Your task to perform on an android device: Search for hotels in Sydney Image 0: 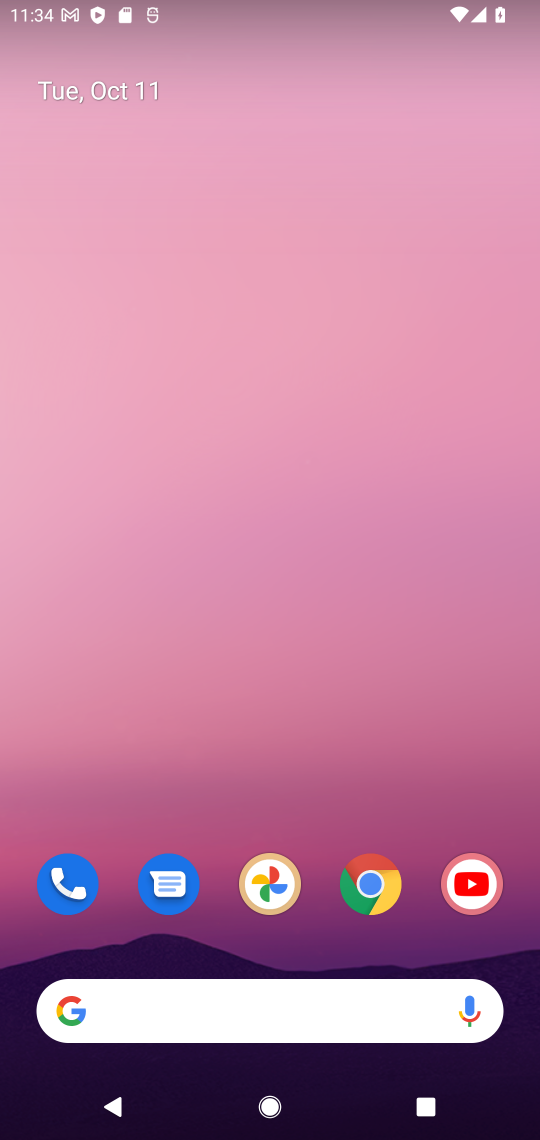
Step 0: drag from (206, 743) to (198, 354)
Your task to perform on an android device: Search for hotels in Sydney Image 1: 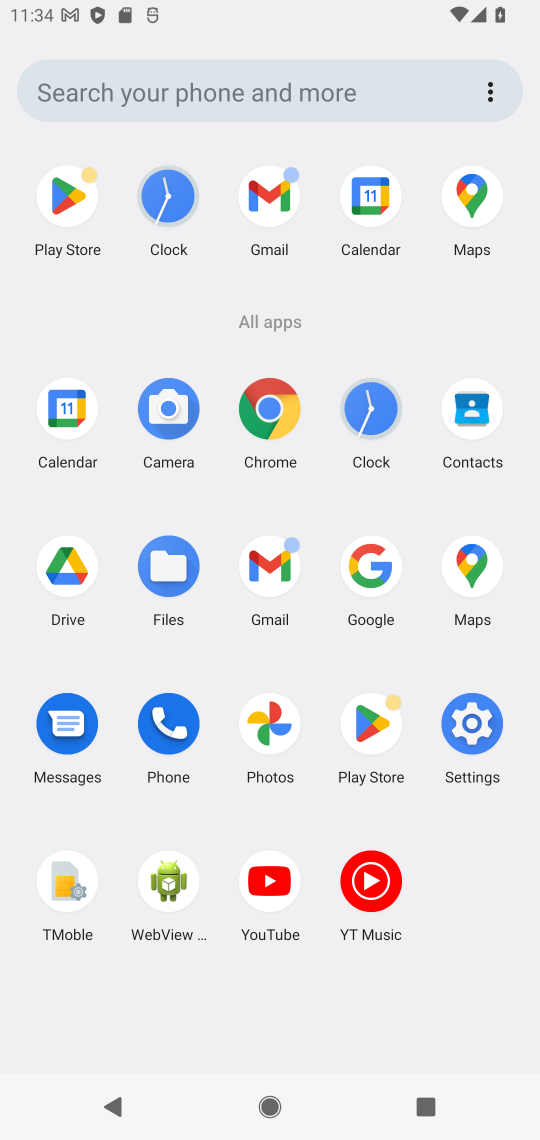
Step 1: click (386, 566)
Your task to perform on an android device: Search for hotels in Sydney Image 2: 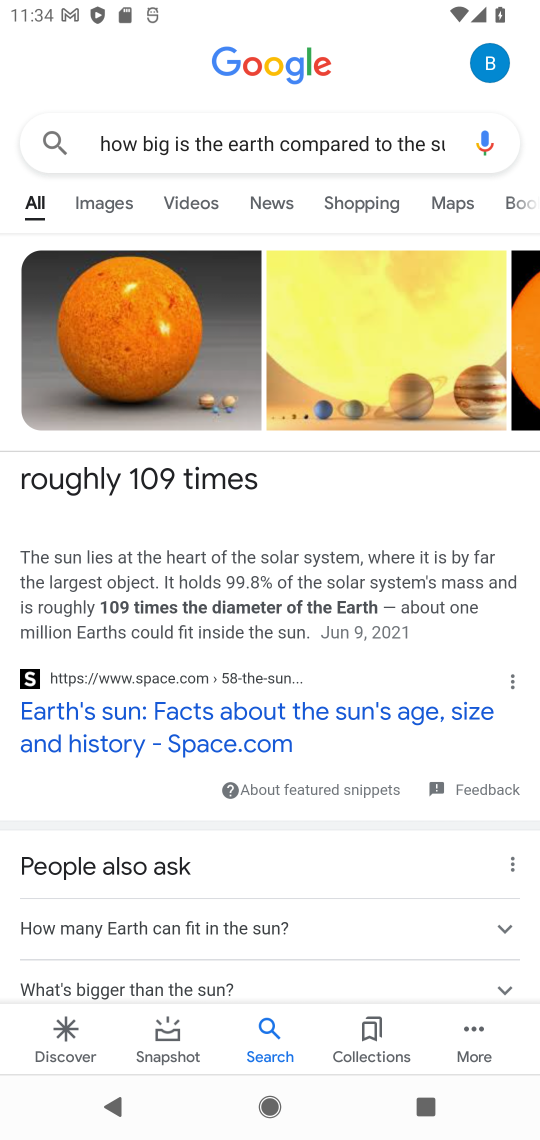
Step 2: click (304, 135)
Your task to perform on an android device: Search for hotels in Sydney Image 3: 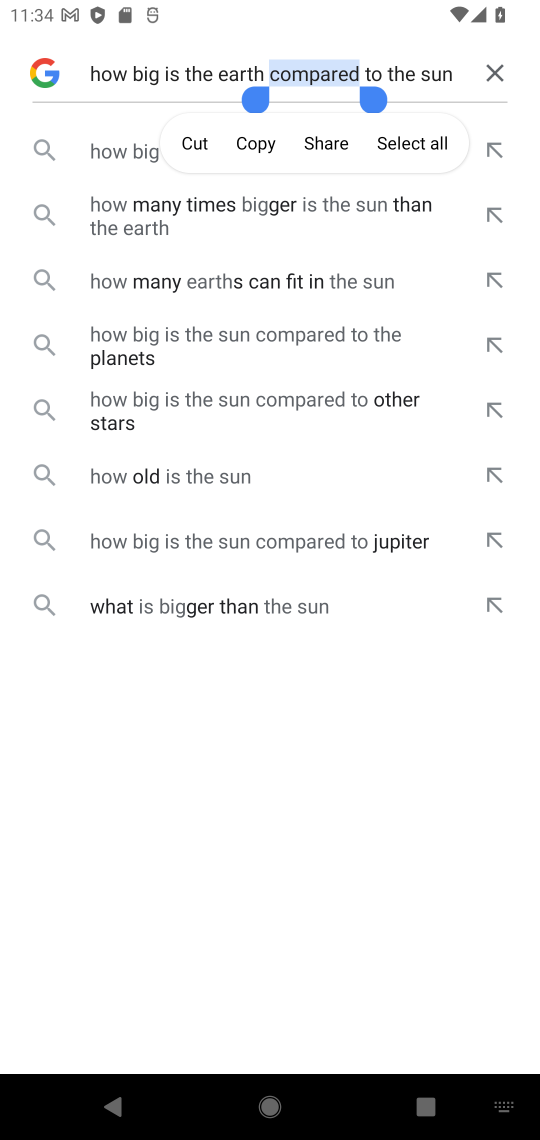
Step 3: click (496, 78)
Your task to perform on an android device: Search for hotels in Sydney Image 4: 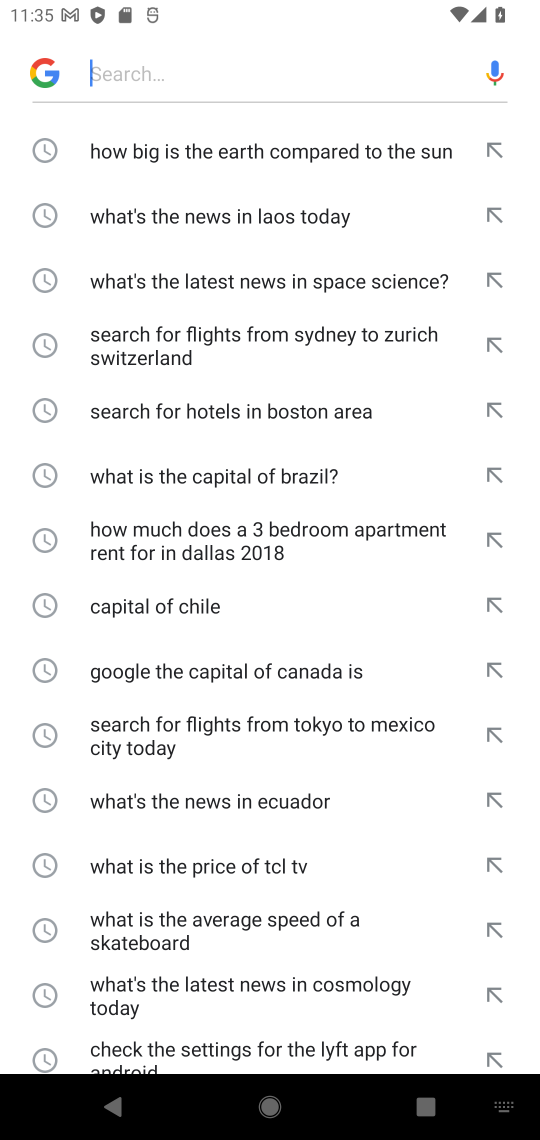
Step 4: type "Search for hotels in Sydney"
Your task to perform on an android device: Search for hotels in Sydney Image 5: 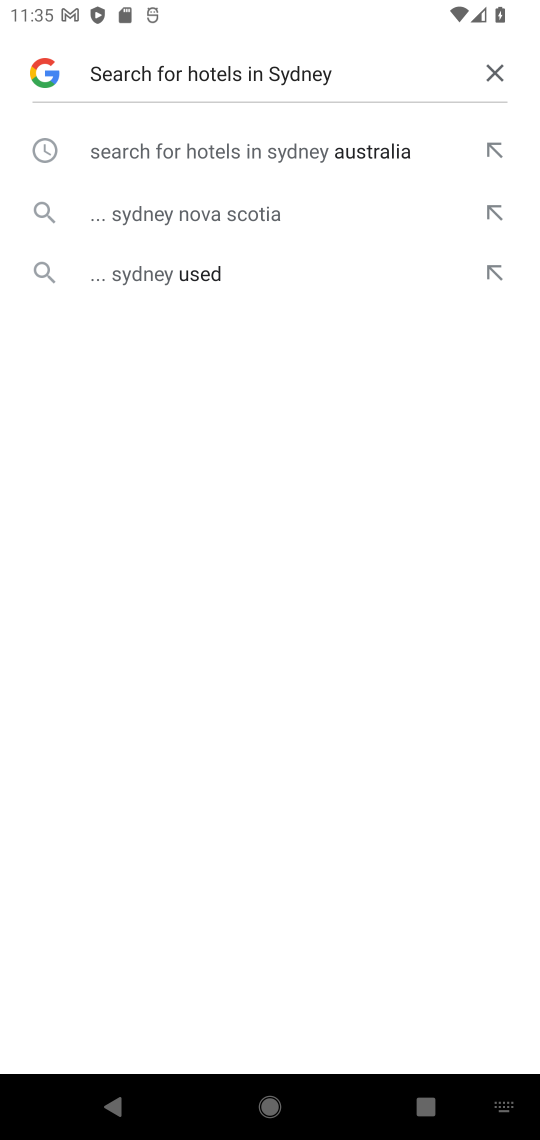
Step 5: click (227, 163)
Your task to perform on an android device: Search for hotels in Sydney Image 6: 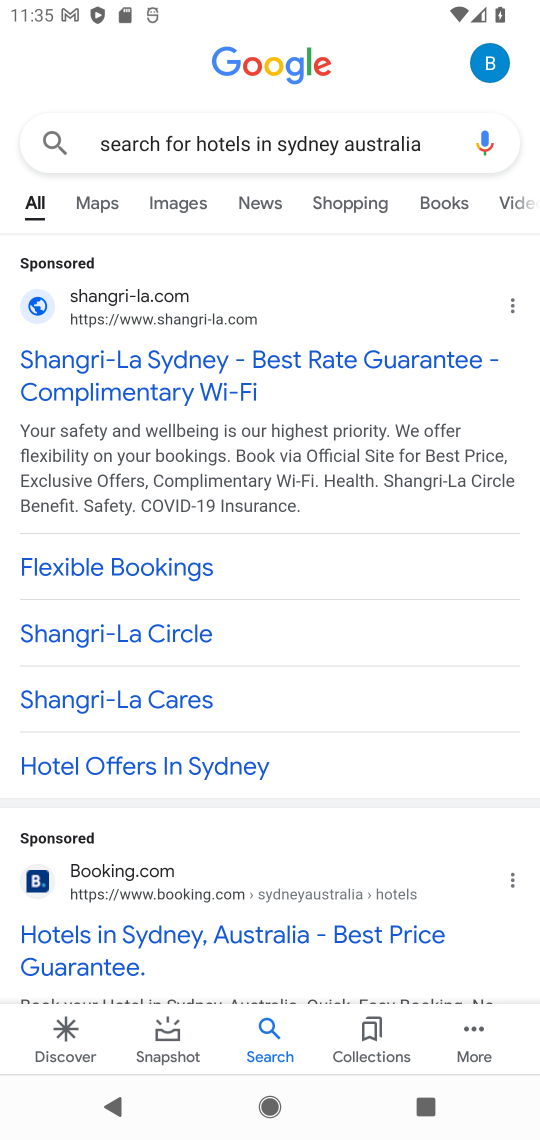
Step 6: click (193, 380)
Your task to perform on an android device: Search for hotels in Sydney Image 7: 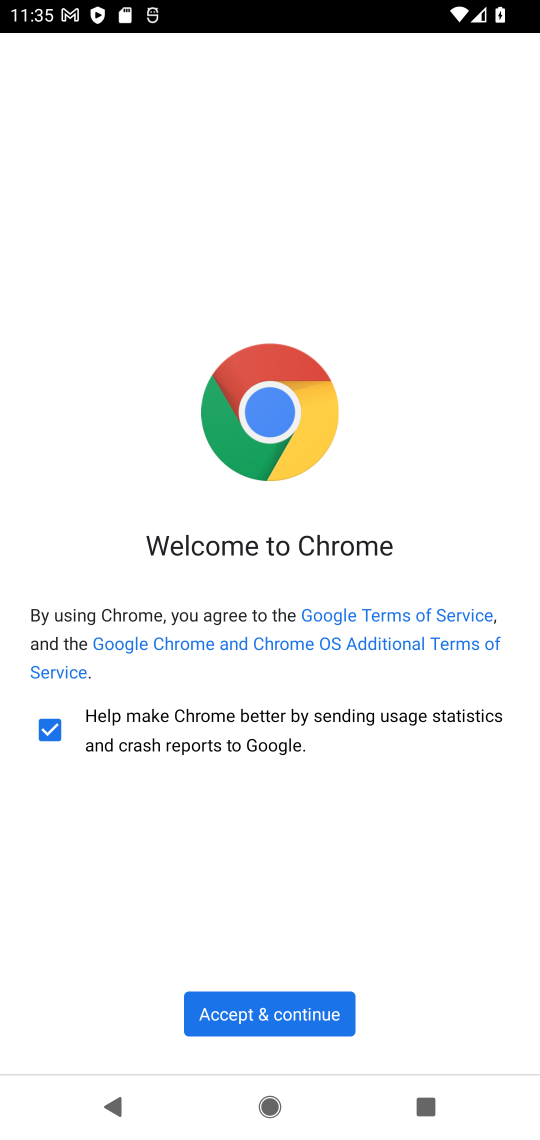
Step 7: task complete